Your task to perform on an android device: Show me the alarms in the clock app Image 0: 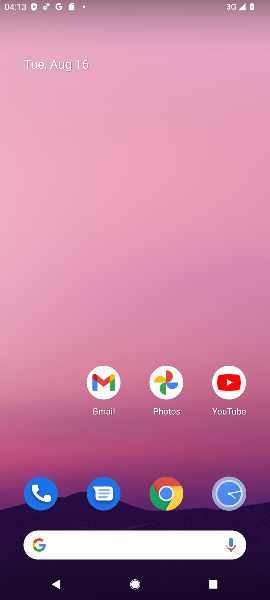
Step 0: press home button
Your task to perform on an android device: Show me the alarms in the clock app Image 1: 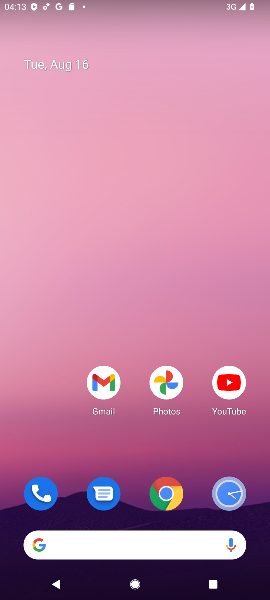
Step 1: drag from (69, 498) to (80, 148)
Your task to perform on an android device: Show me the alarms in the clock app Image 2: 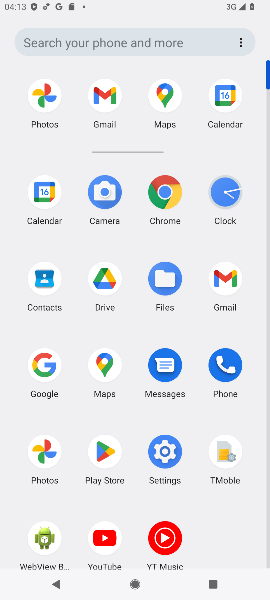
Step 2: click (227, 185)
Your task to perform on an android device: Show me the alarms in the clock app Image 3: 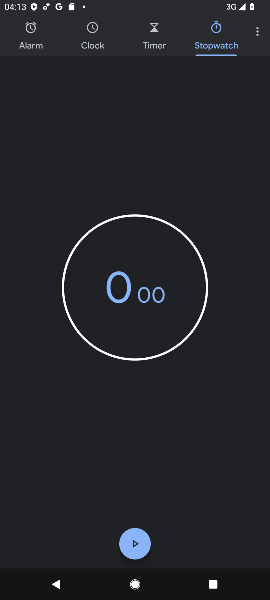
Step 3: click (29, 30)
Your task to perform on an android device: Show me the alarms in the clock app Image 4: 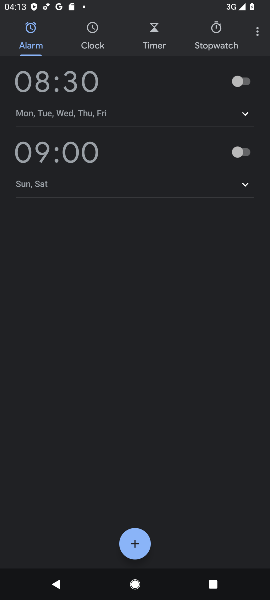
Step 4: task complete